Your task to perform on an android device: change the clock style Image 0: 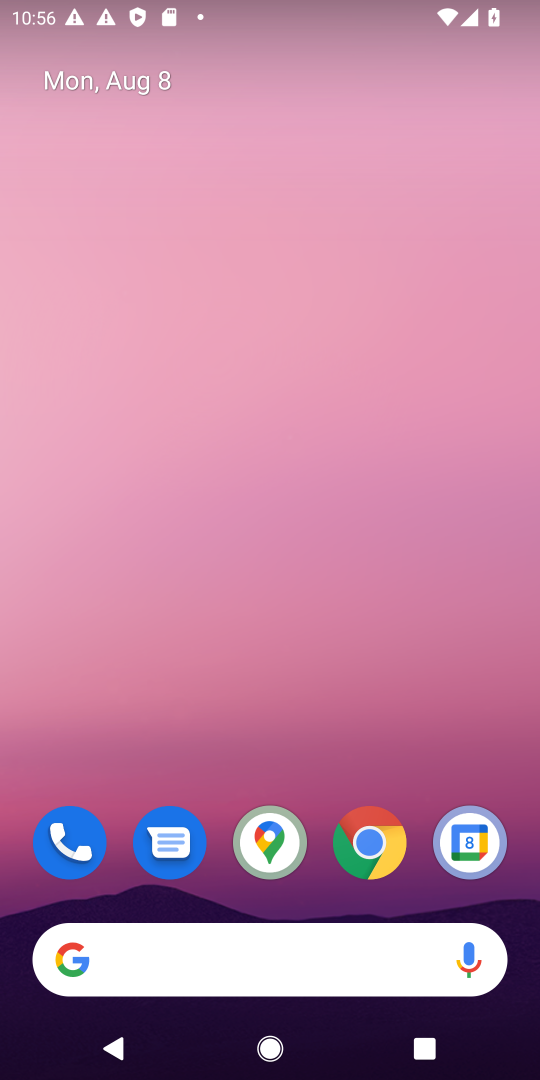
Step 0: drag from (189, 784) to (111, 191)
Your task to perform on an android device: change the clock style Image 1: 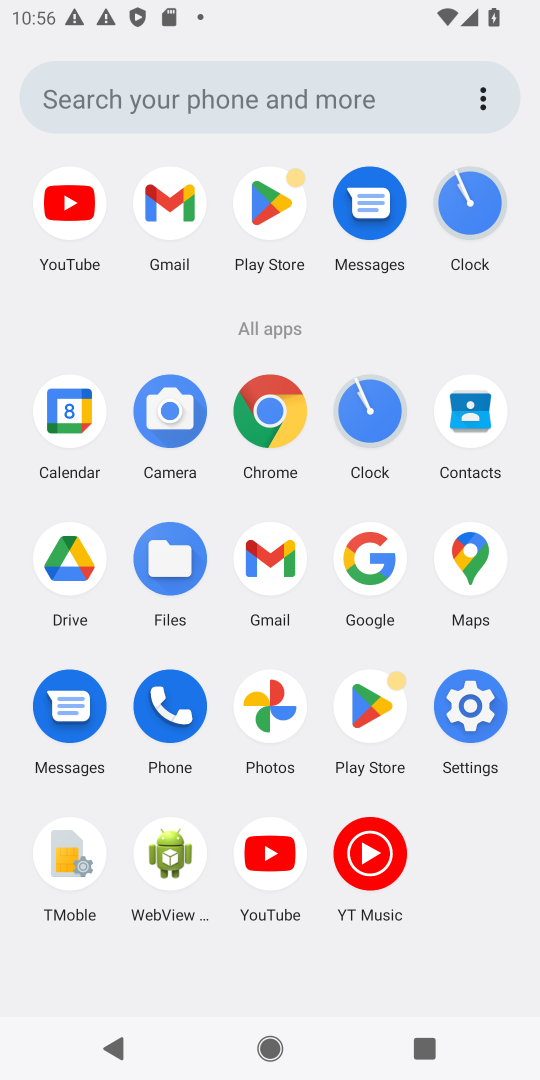
Step 1: click (369, 422)
Your task to perform on an android device: change the clock style Image 2: 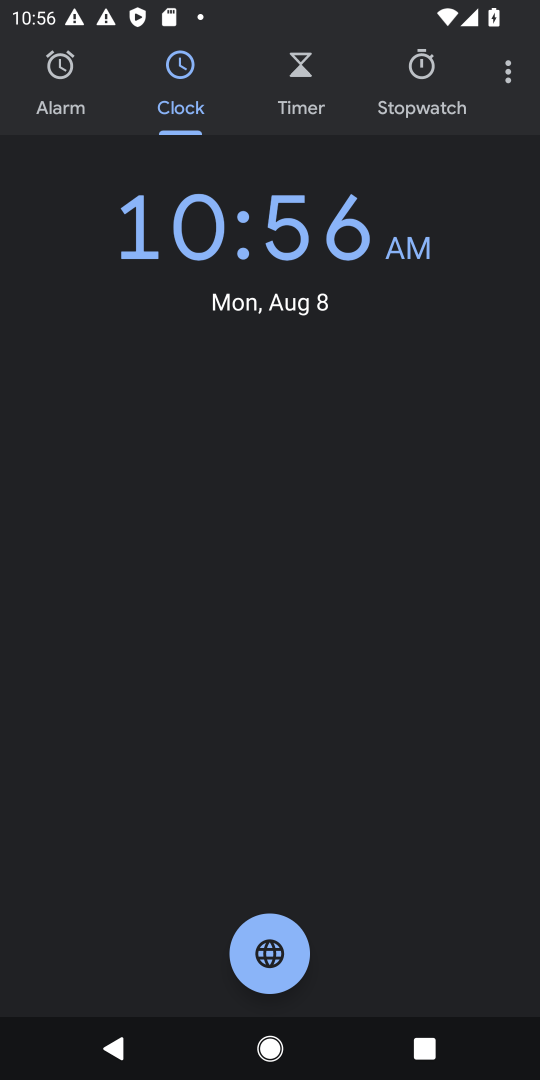
Step 2: click (488, 65)
Your task to perform on an android device: change the clock style Image 3: 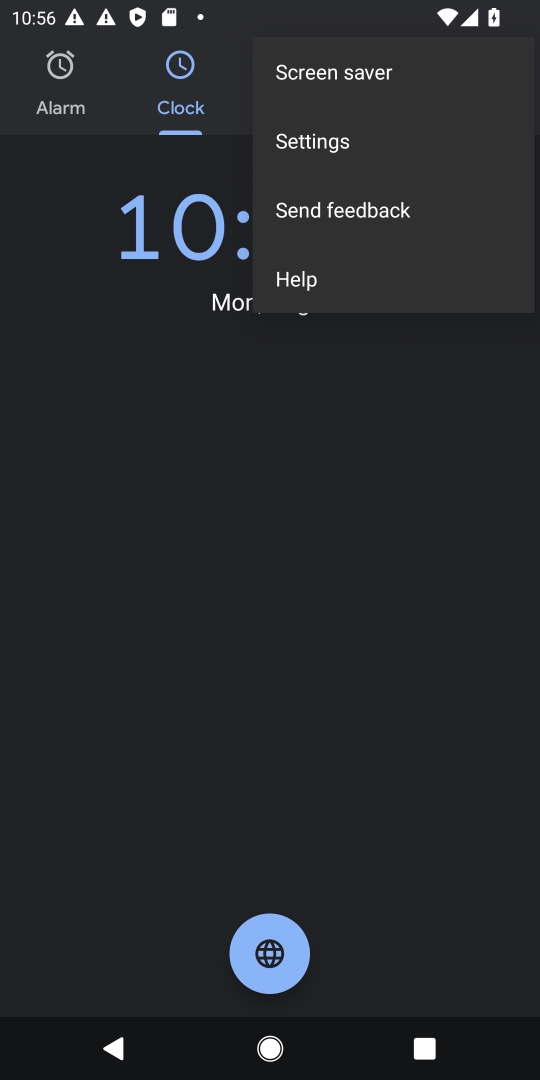
Step 3: click (392, 152)
Your task to perform on an android device: change the clock style Image 4: 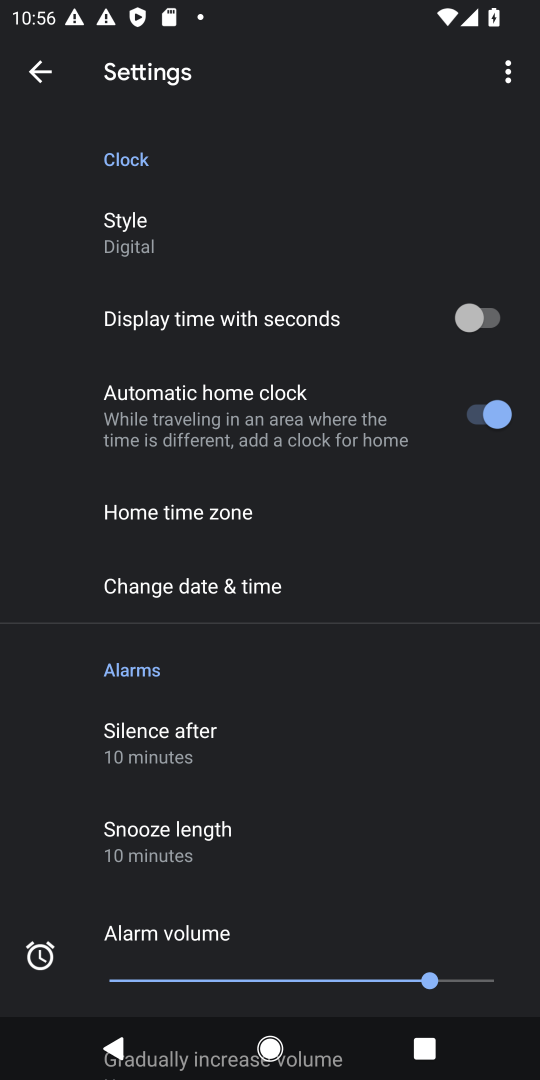
Step 4: click (177, 237)
Your task to perform on an android device: change the clock style Image 5: 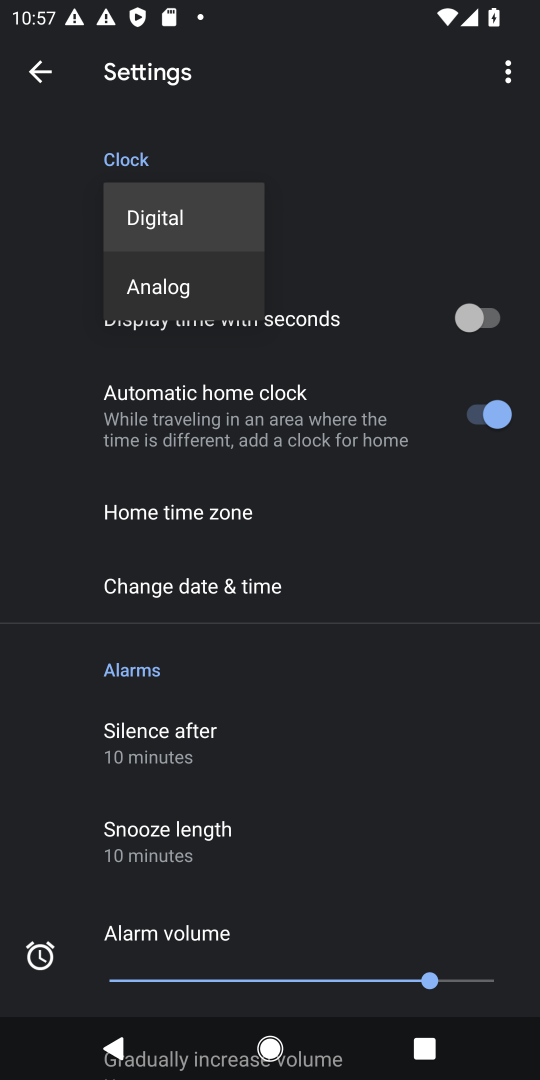
Step 5: click (161, 292)
Your task to perform on an android device: change the clock style Image 6: 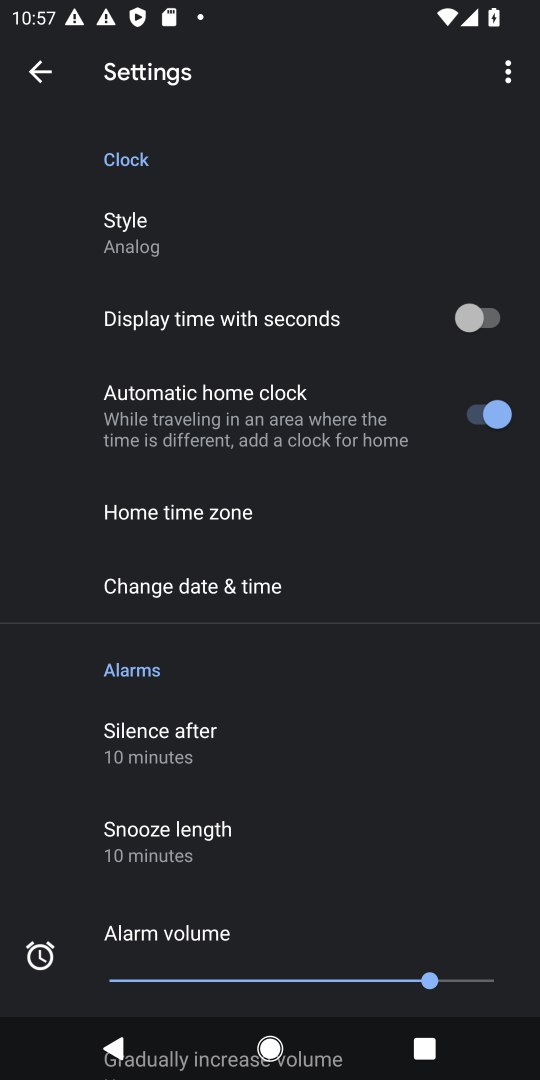
Step 6: task complete